Your task to perform on an android device: Open calendar and show me the fourth week of next month Image 0: 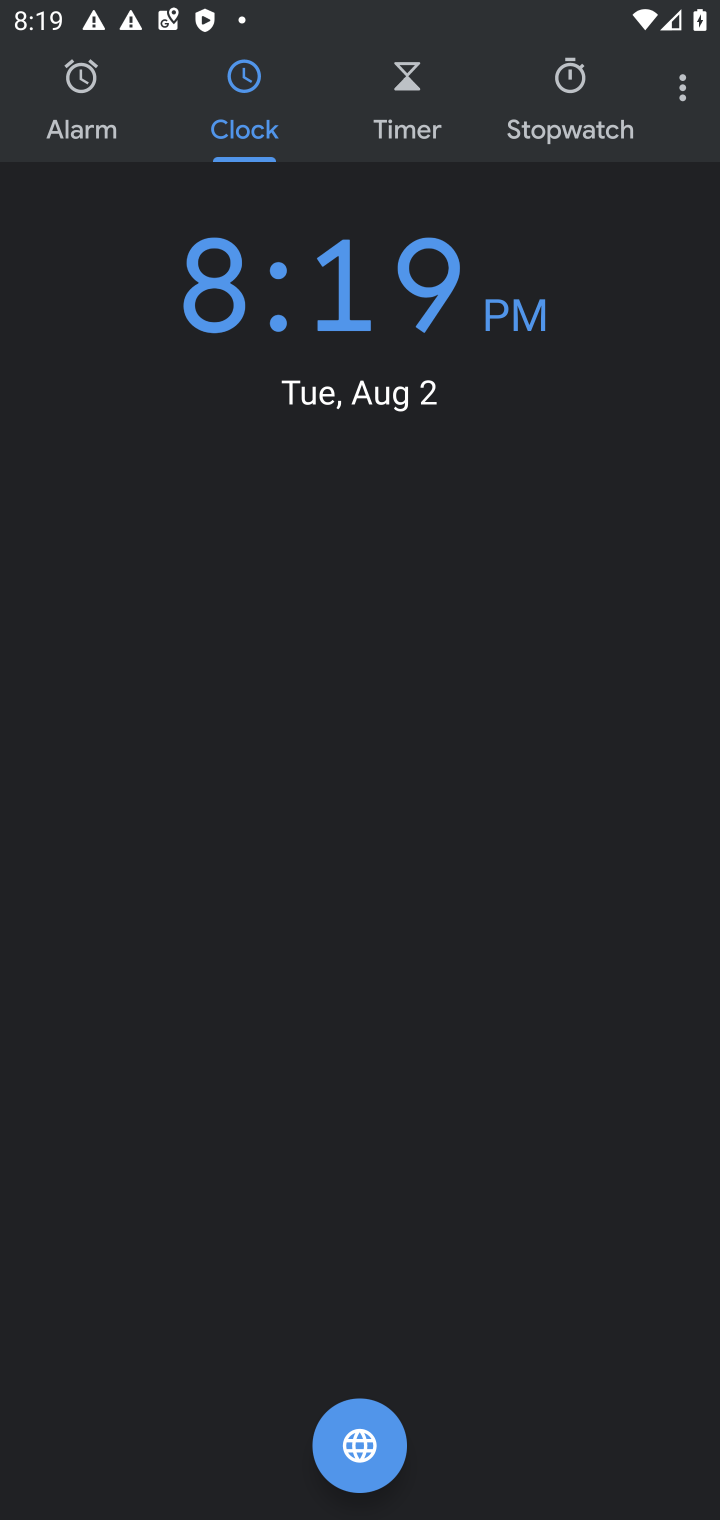
Step 0: press home button
Your task to perform on an android device: Open calendar and show me the fourth week of next month Image 1: 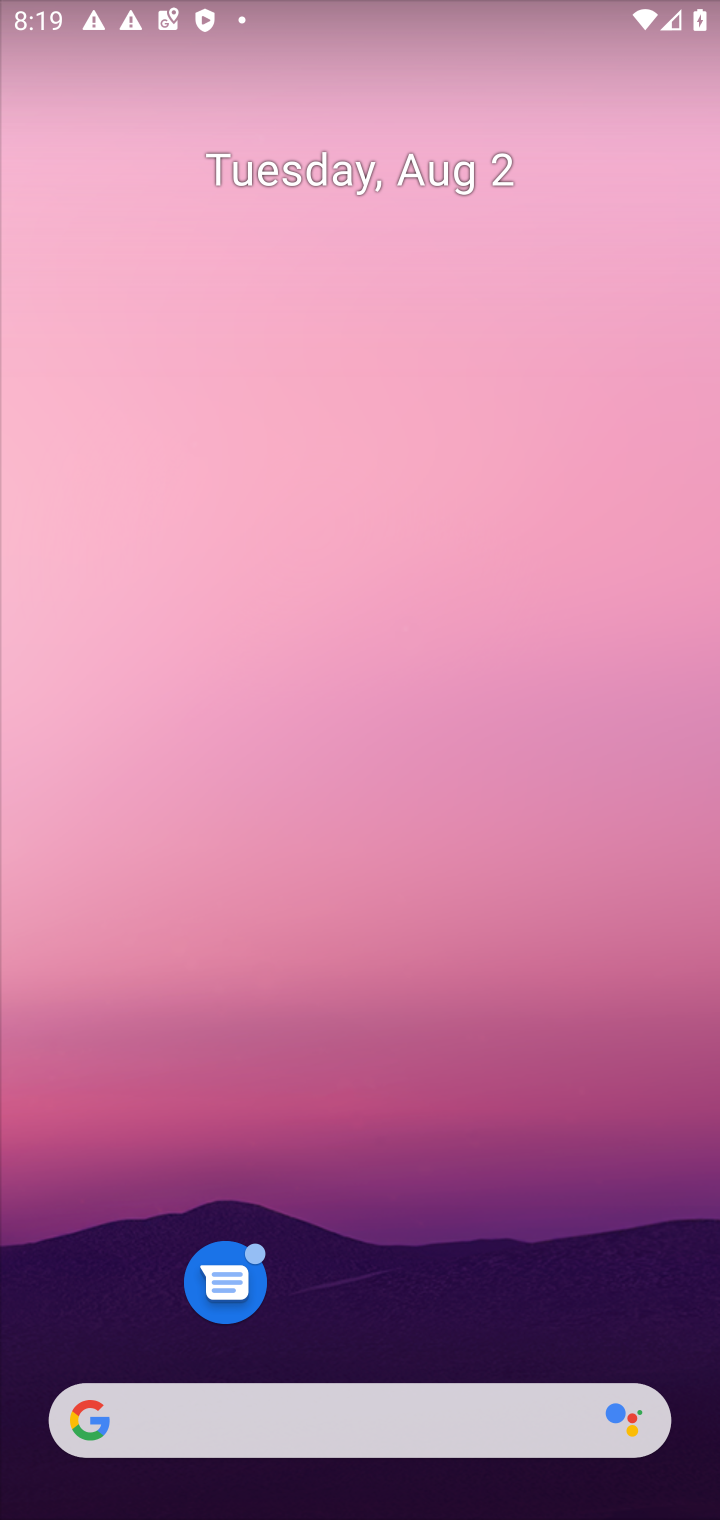
Step 1: drag from (361, 1211) to (403, 45)
Your task to perform on an android device: Open calendar and show me the fourth week of next month Image 2: 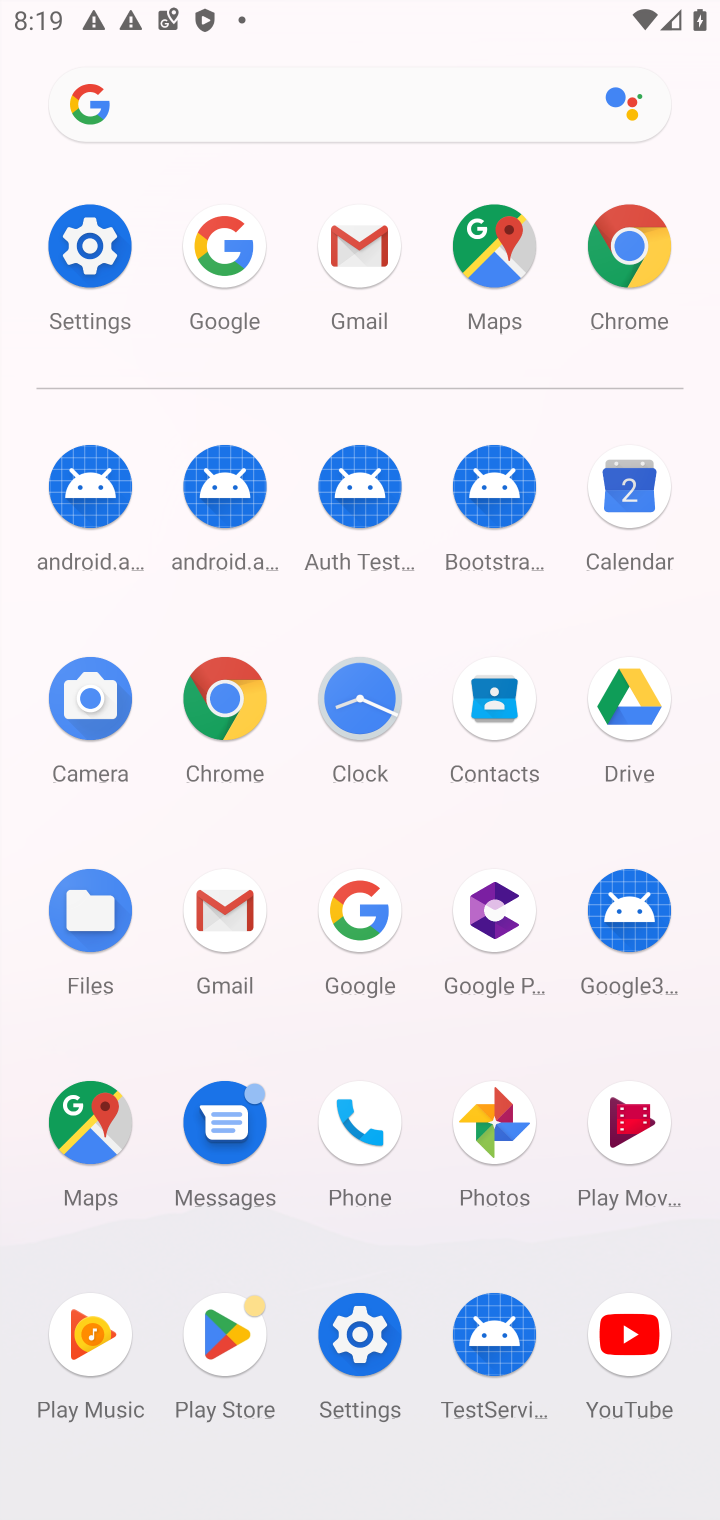
Step 2: click (623, 522)
Your task to perform on an android device: Open calendar and show me the fourth week of next month Image 3: 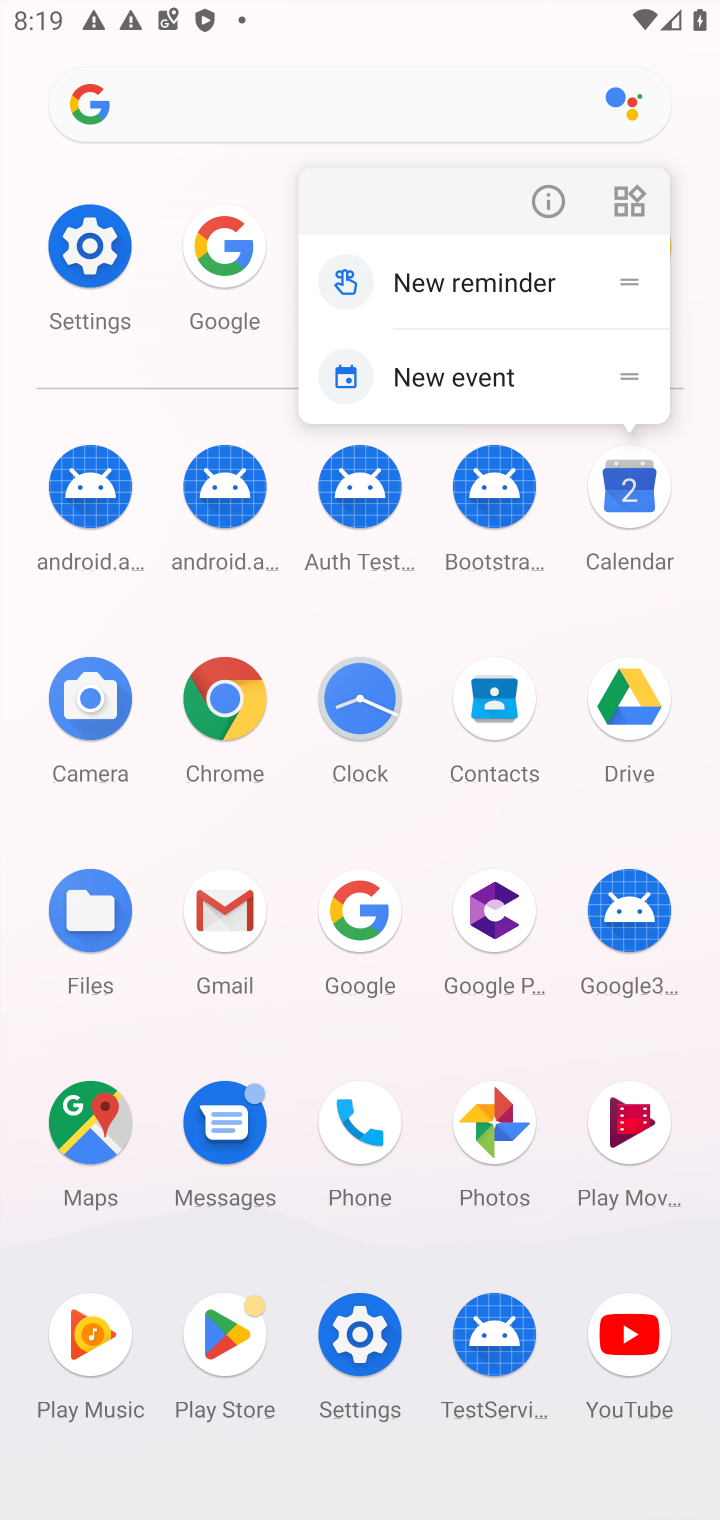
Step 3: click (623, 504)
Your task to perform on an android device: Open calendar and show me the fourth week of next month Image 4: 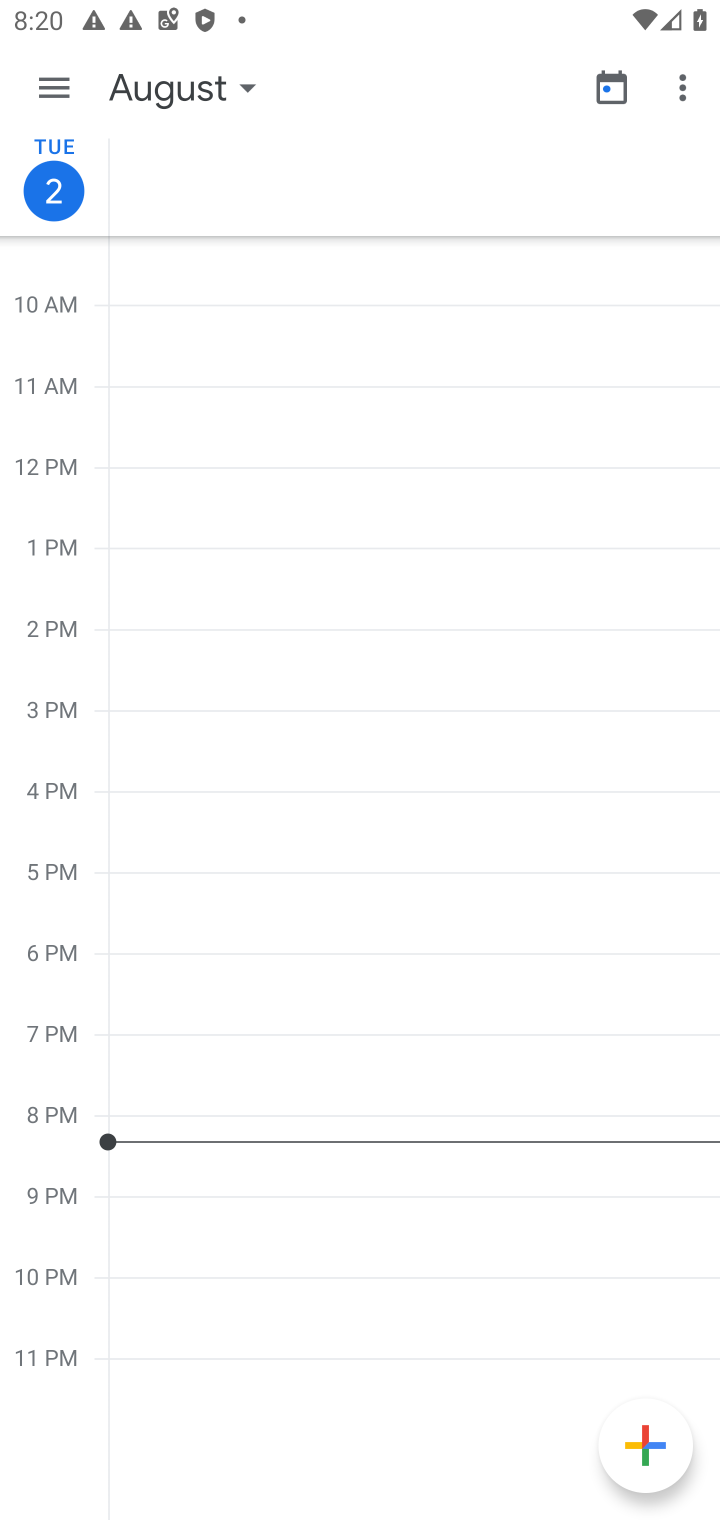
Step 4: click (66, 78)
Your task to perform on an android device: Open calendar and show me the fourth week of next month Image 5: 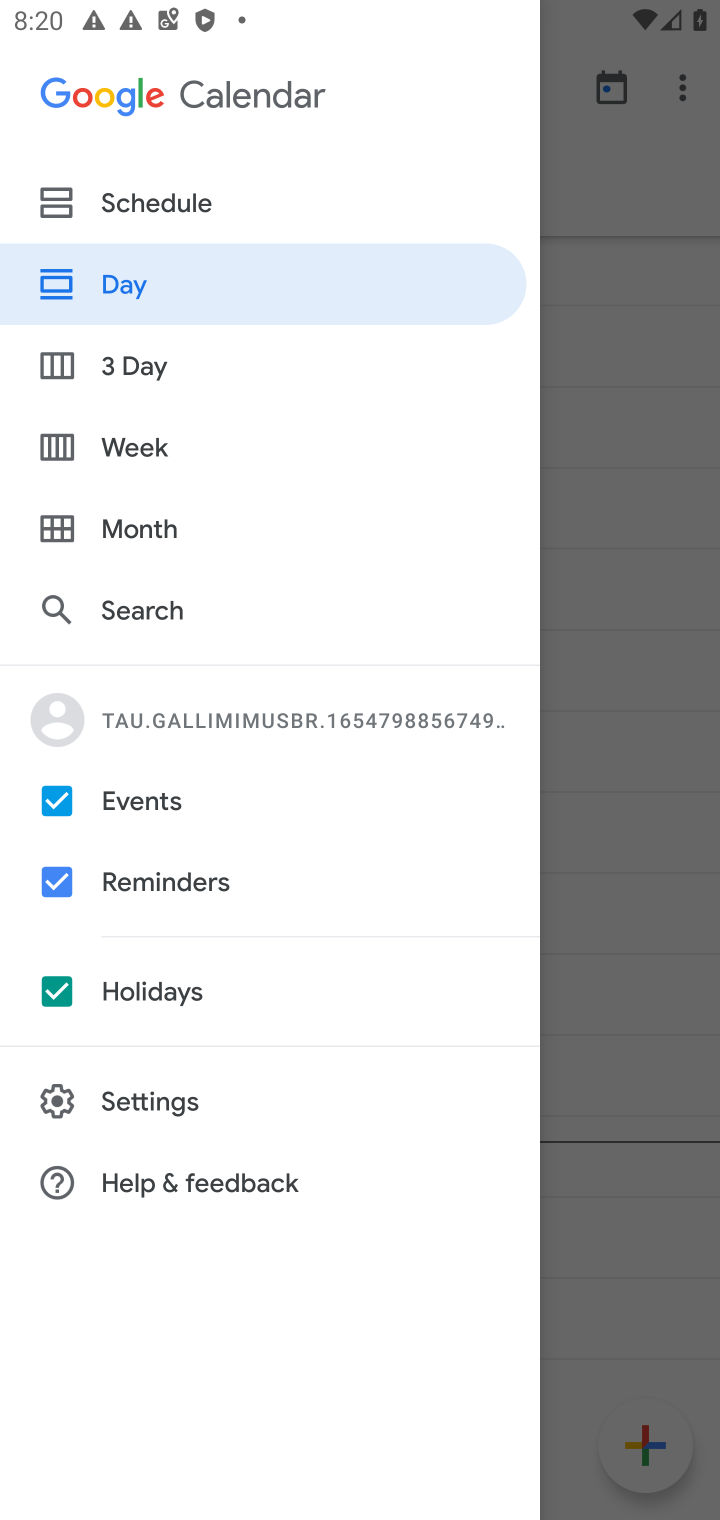
Step 5: click (164, 439)
Your task to perform on an android device: Open calendar and show me the fourth week of next month Image 6: 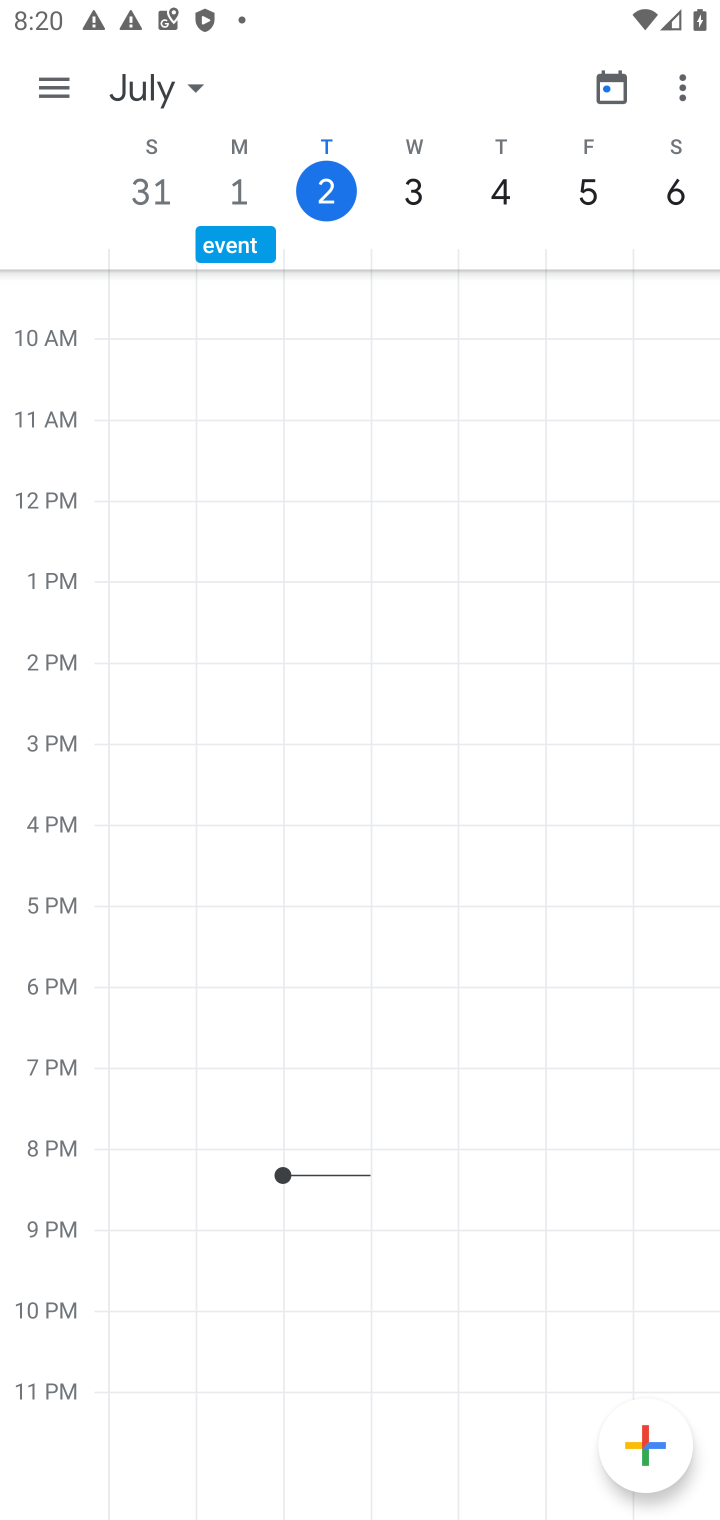
Step 6: task complete